Your task to perform on an android device: Check the weather Image 0: 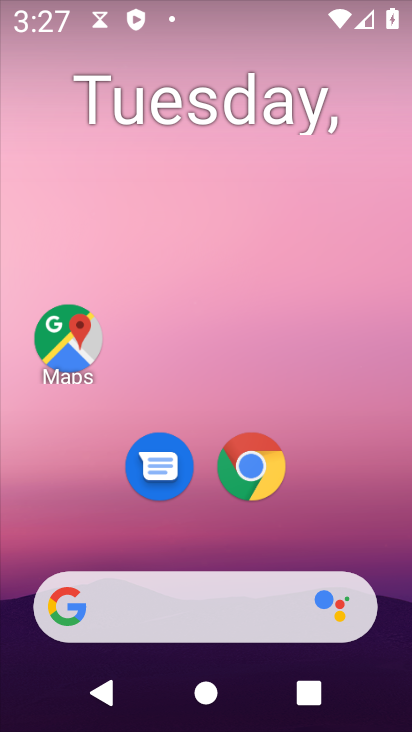
Step 0: drag from (346, 395) to (320, 21)
Your task to perform on an android device: Check the weather Image 1: 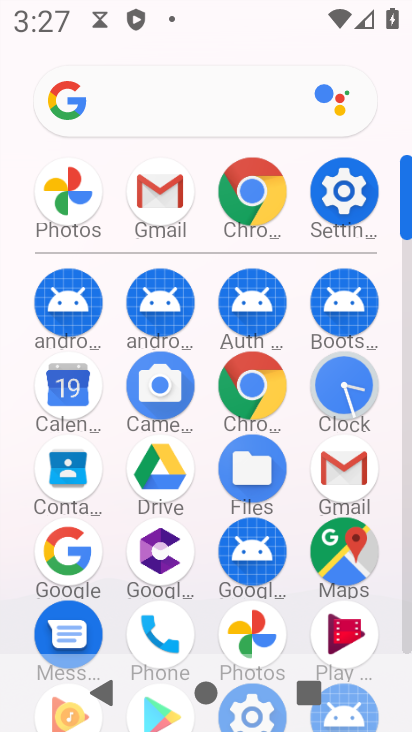
Step 1: drag from (21, 500) to (37, 217)
Your task to perform on an android device: Check the weather Image 2: 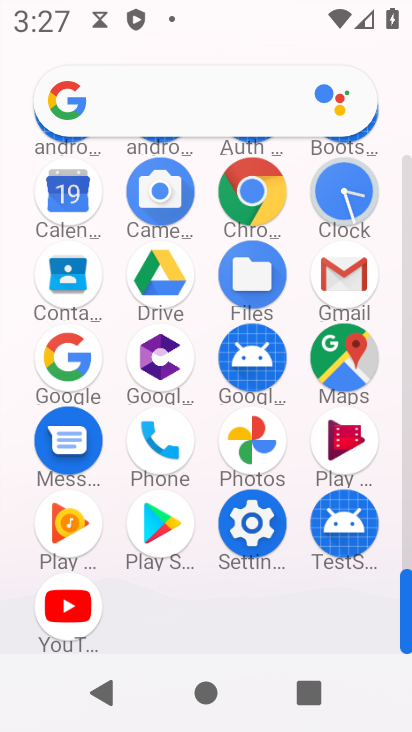
Step 2: click (255, 92)
Your task to perform on an android device: Check the weather Image 3: 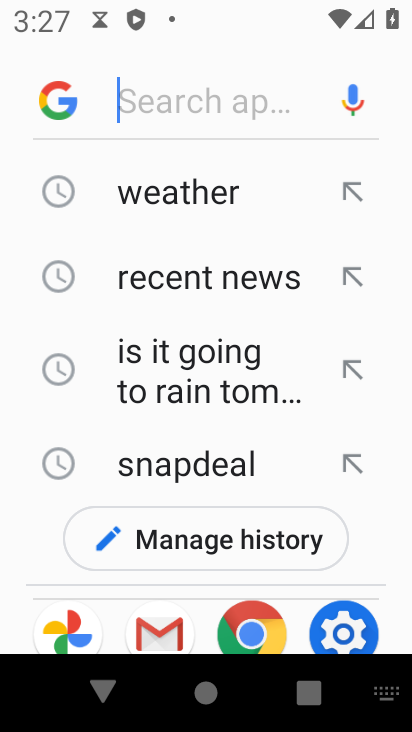
Step 3: click (202, 191)
Your task to perform on an android device: Check the weather Image 4: 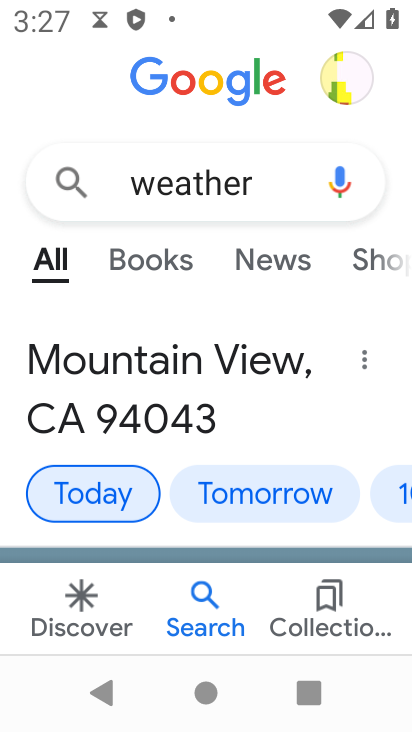
Step 4: task complete